Your task to perform on an android device: Go to Google Image 0: 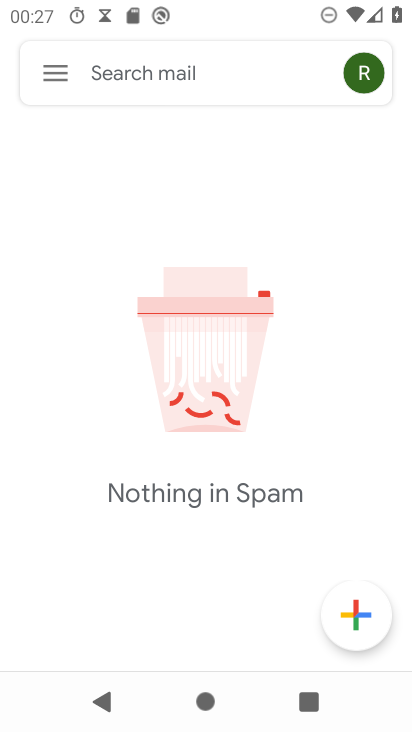
Step 0: press home button
Your task to perform on an android device: Go to Google Image 1: 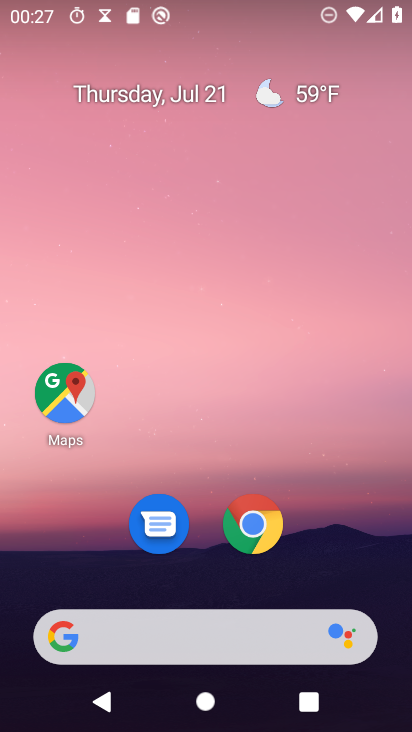
Step 1: drag from (178, 647) to (277, 136)
Your task to perform on an android device: Go to Google Image 2: 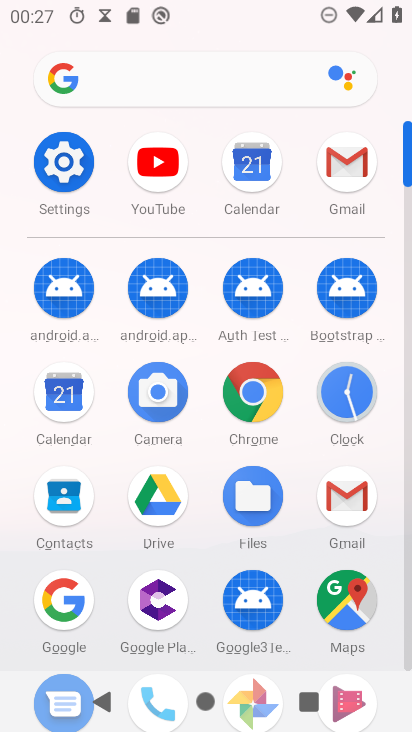
Step 2: click (57, 613)
Your task to perform on an android device: Go to Google Image 3: 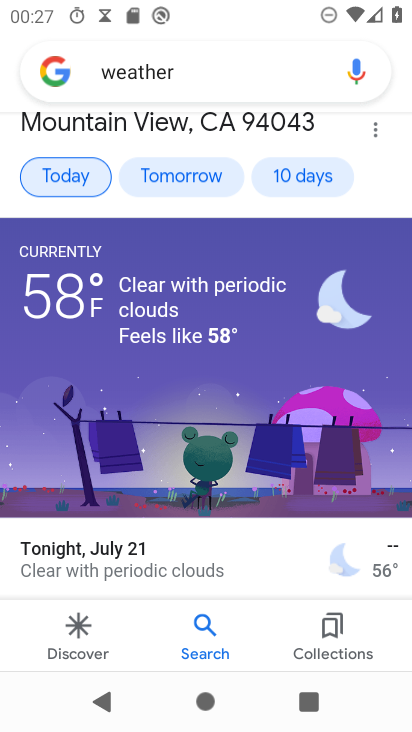
Step 3: task complete